Your task to perform on an android device: create a new album in the google photos Image 0: 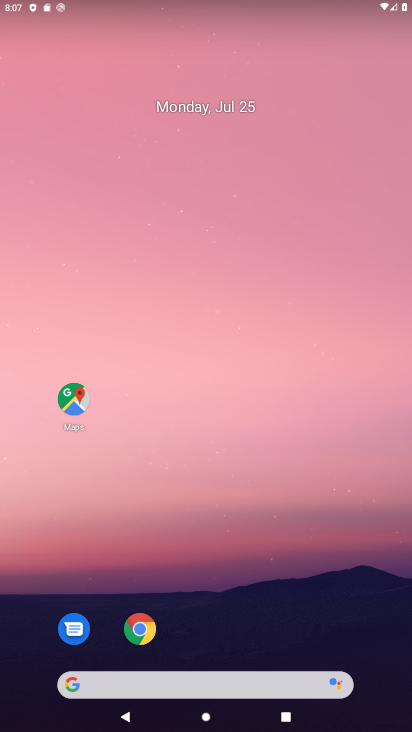
Step 0: drag from (221, 645) to (253, 55)
Your task to perform on an android device: create a new album in the google photos Image 1: 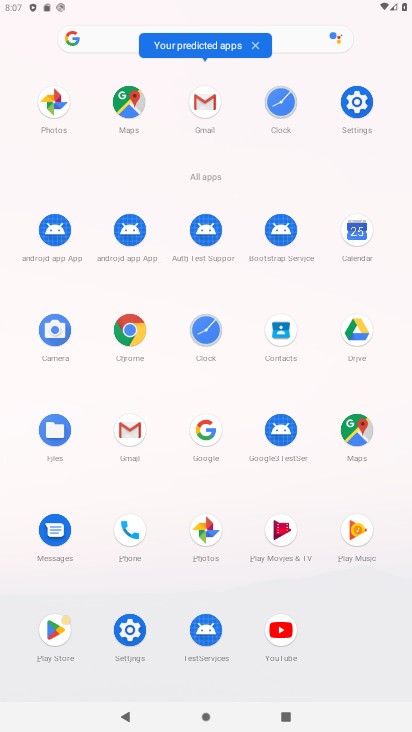
Step 1: click (208, 550)
Your task to perform on an android device: create a new album in the google photos Image 2: 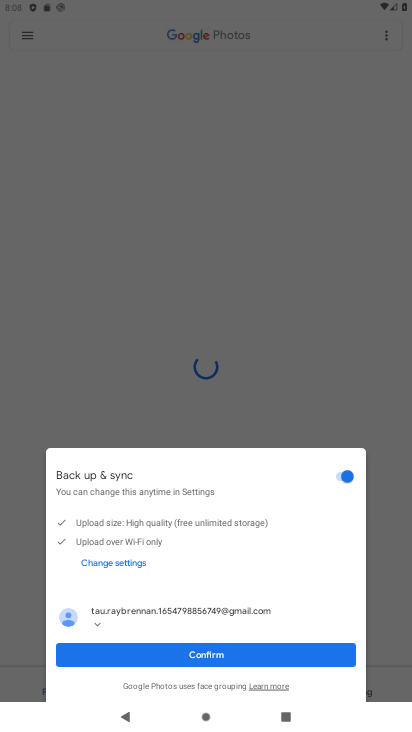
Step 2: click (194, 662)
Your task to perform on an android device: create a new album in the google photos Image 3: 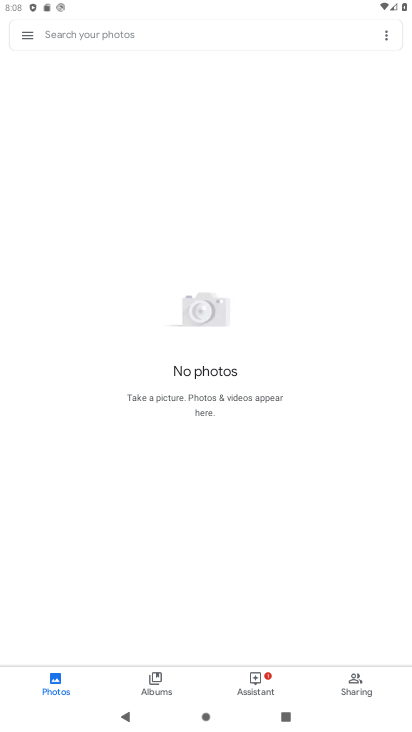
Step 3: click (162, 685)
Your task to perform on an android device: create a new album in the google photos Image 4: 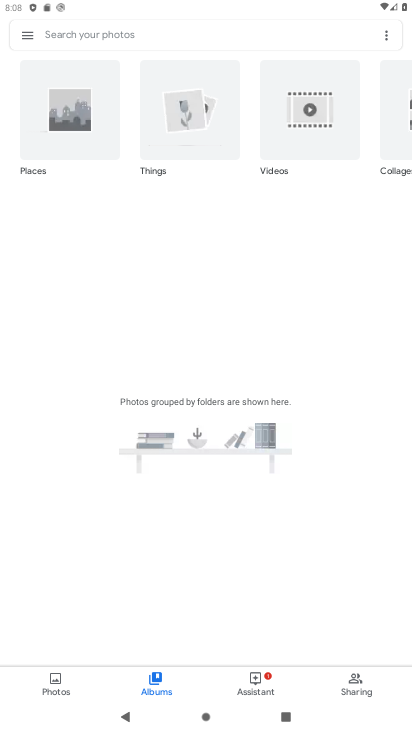
Step 4: task complete